Your task to perform on an android device: Check the news Image 0: 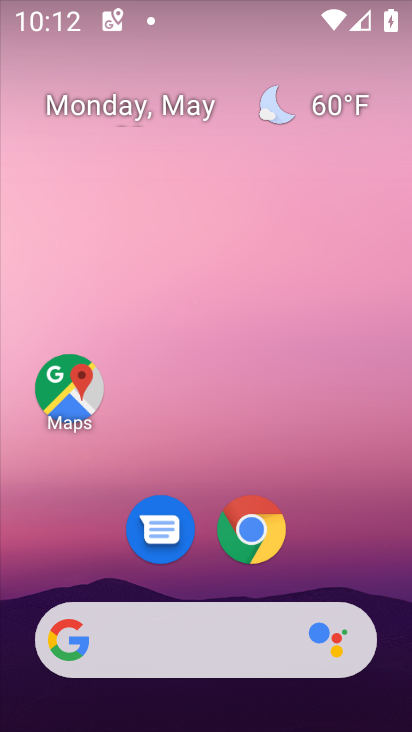
Step 0: click (213, 657)
Your task to perform on an android device: Check the news Image 1: 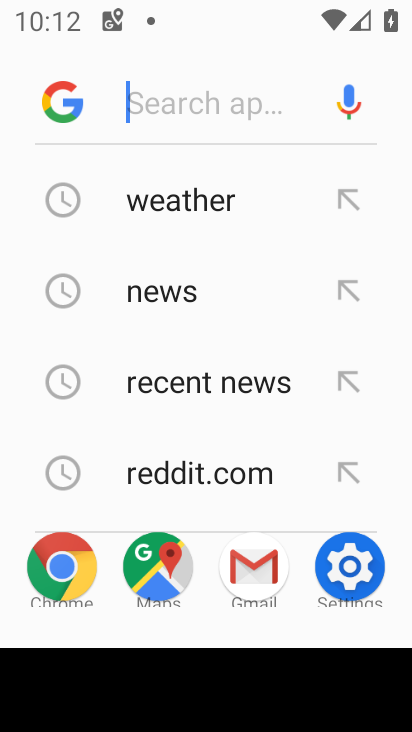
Step 1: click (185, 289)
Your task to perform on an android device: Check the news Image 2: 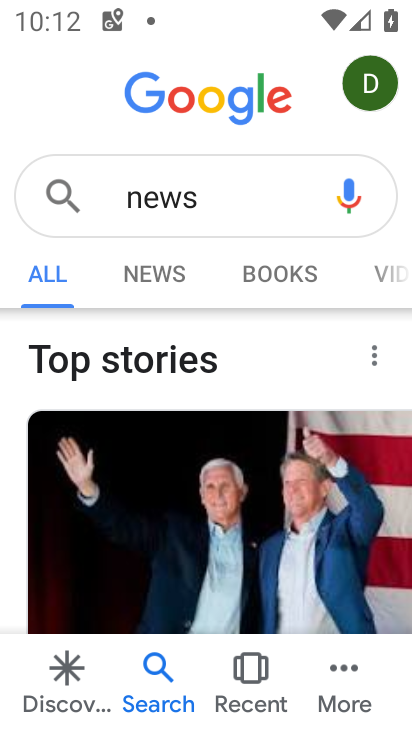
Step 2: task complete